Your task to perform on an android device: manage bookmarks in the chrome app Image 0: 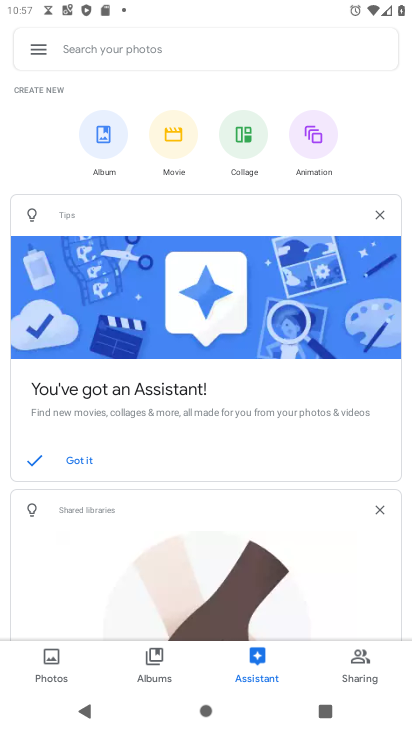
Step 0: press back button
Your task to perform on an android device: manage bookmarks in the chrome app Image 1: 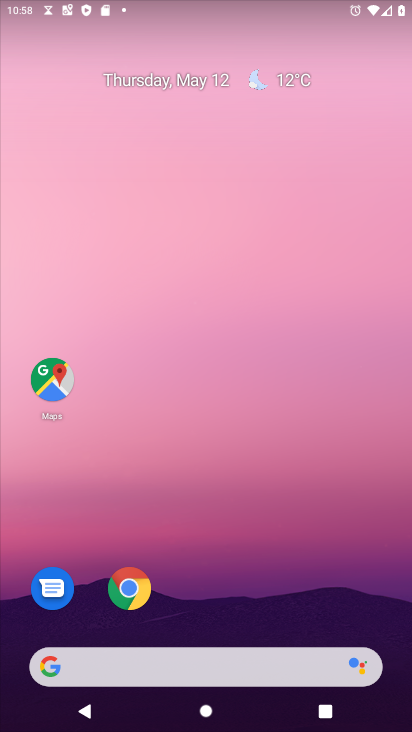
Step 1: click (129, 586)
Your task to perform on an android device: manage bookmarks in the chrome app Image 2: 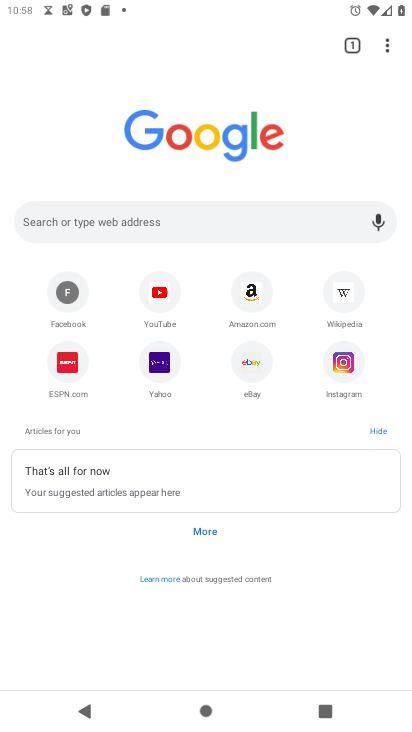
Step 2: click (385, 43)
Your task to perform on an android device: manage bookmarks in the chrome app Image 3: 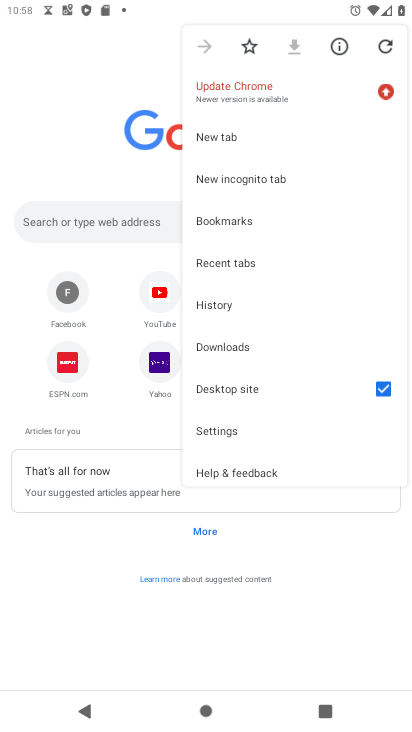
Step 3: click (237, 219)
Your task to perform on an android device: manage bookmarks in the chrome app Image 4: 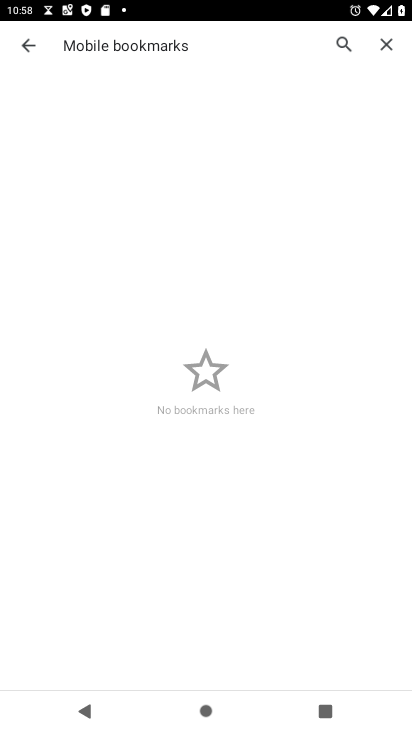
Step 4: task complete